Your task to perform on an android device: refresh tabs in the chrome app Image 0: 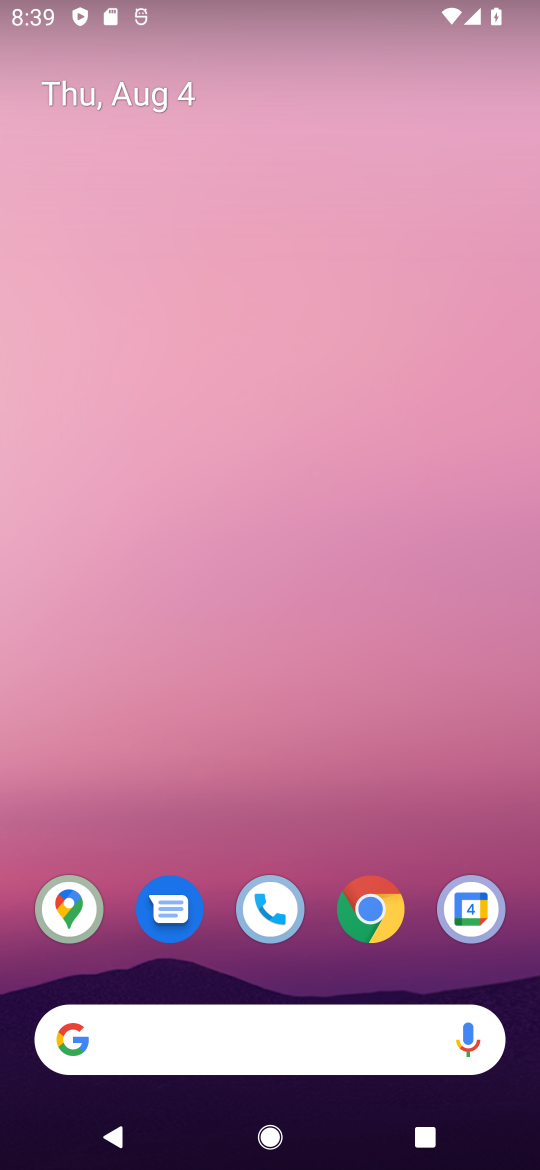
Step 0: press home button
Your task to perform on an android device: refresh tabs in the chrome app Image 1: 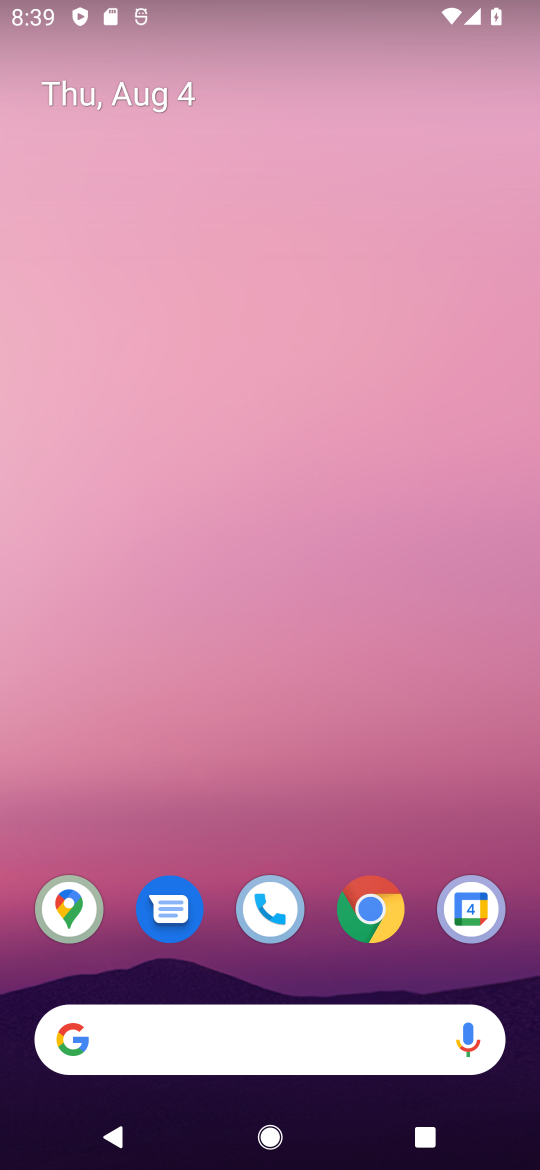
Step 1: drag from (408, 758) to (404, 189)
Your task to perform on an android device: refresh tabs in the chrome app Image 2: 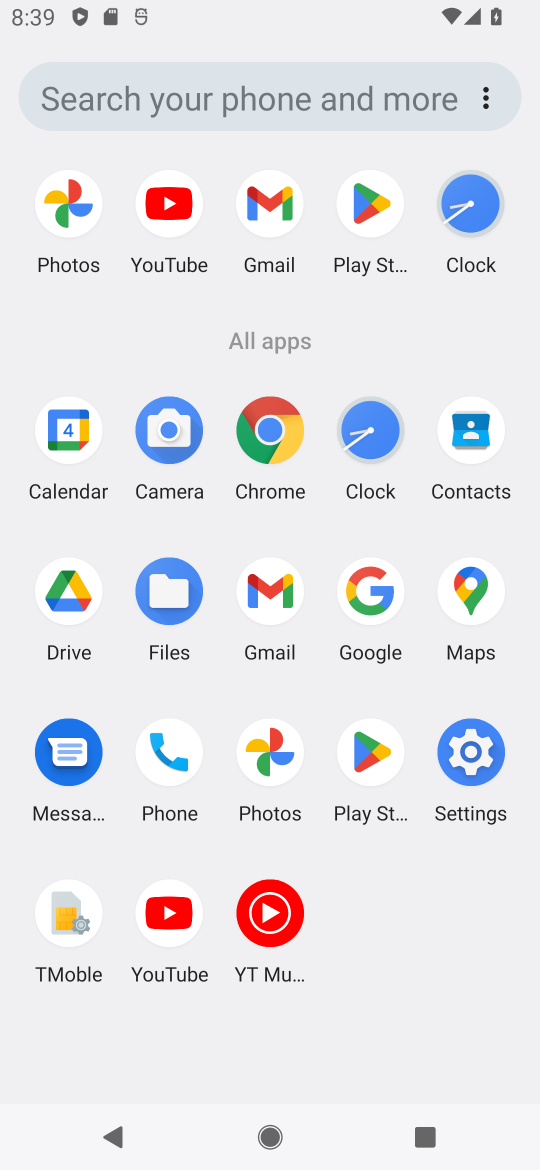
Step 2: click (280, 434)
Your task to perform on an android device: refresh tabs in the chrome app Image 3: 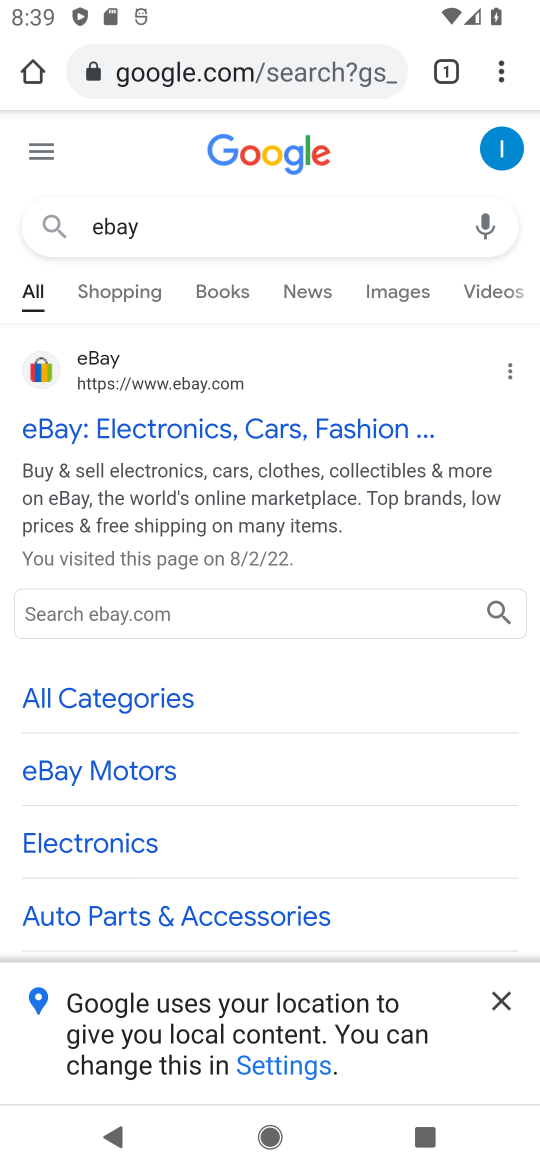
Step 3: click (506, 69)
Your task to perform on an android device: refresh tabs in the chrome app Image 4: 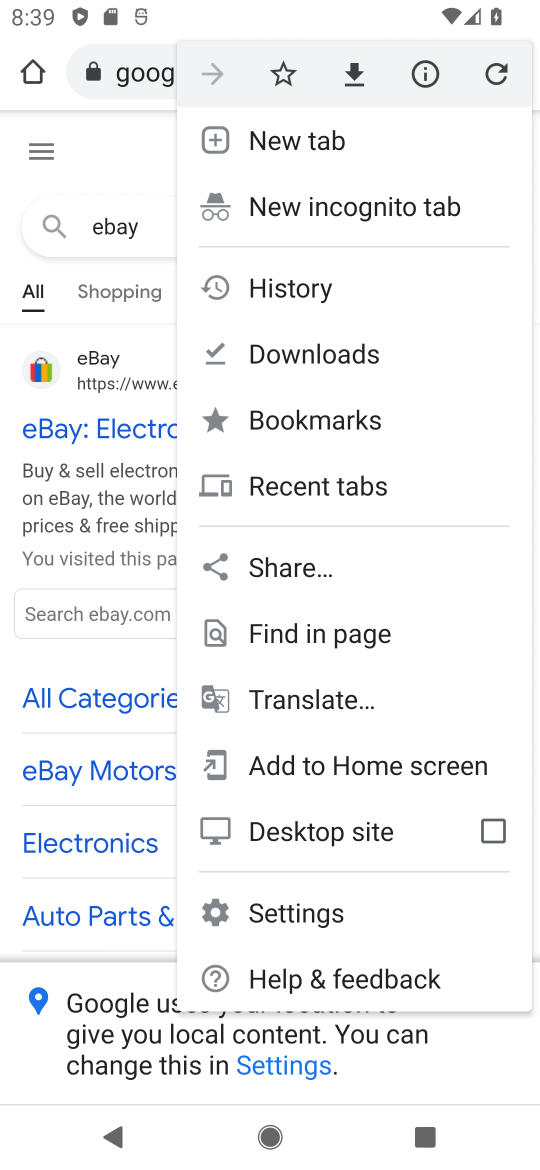
Step 4: click (502, 77)
Your task to perform on an android device: refresh tabs in the chrome app Image 5: 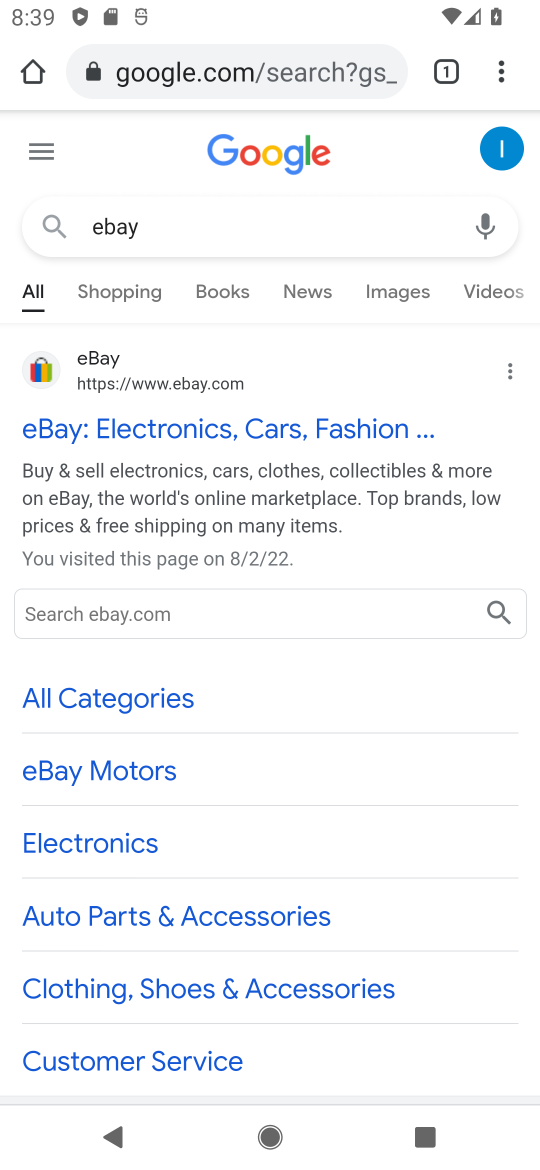
Step 5: task complete